Your task to perform on an android device: find which apps use the phone's location Image 0: 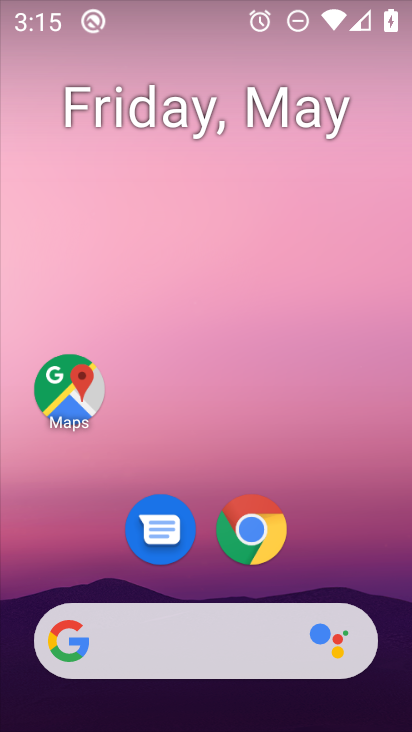
Step 0: drag from (394, 651) to (369, 363)
Your task to perform on an android device: find which apps use the phone's location Image 1: 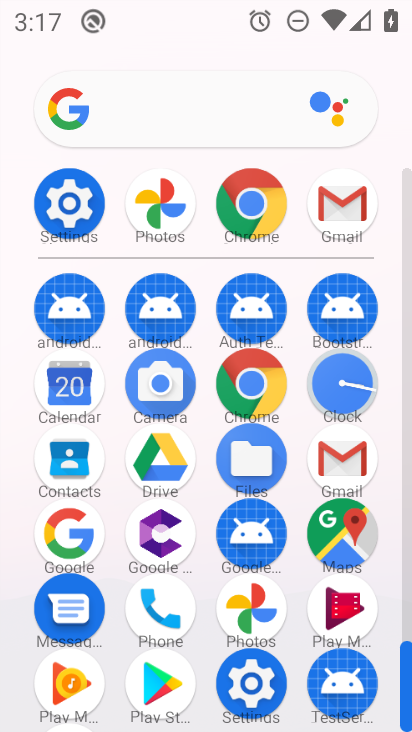
Step 1: click (64, 206)
Your task to perform on an android device: find which apps use the phone's location Image 2: 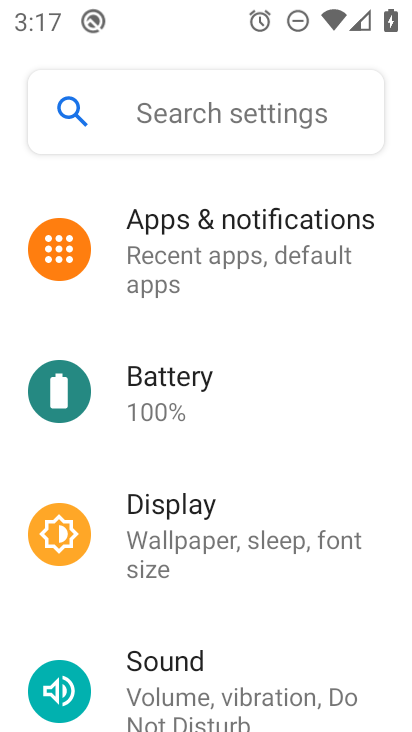
Step 2: drag from (292, 668) to (277, 326)
Your task to perform on an android device: find which apps use the phone's location Image 3: 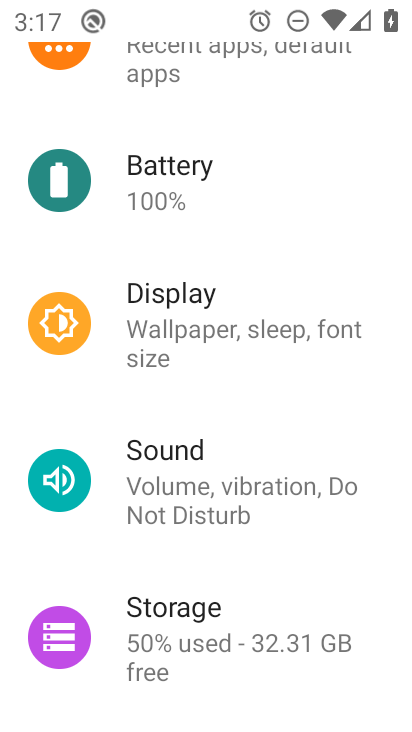
Step 3: drag from (292, 691) to (289, 321)
Your task to perform on an android device: find which apps use the phone's location Image 4: 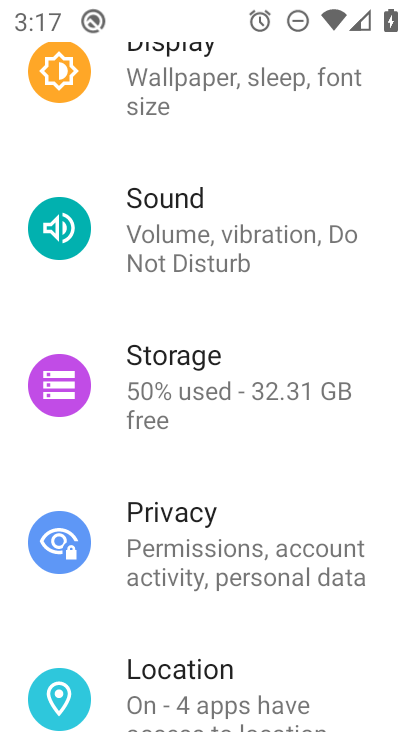
Step 4: click (205, 688)
Your task to perform on an android device: find which apps use the phone's location Image 5: 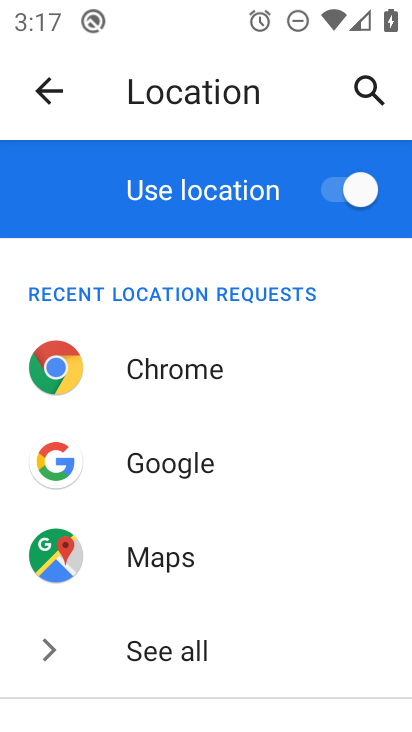
Step 5: drag from (316, 626) to (256, 324)
Your task to perform on an android device: find which apps use the phone's location Image 6: 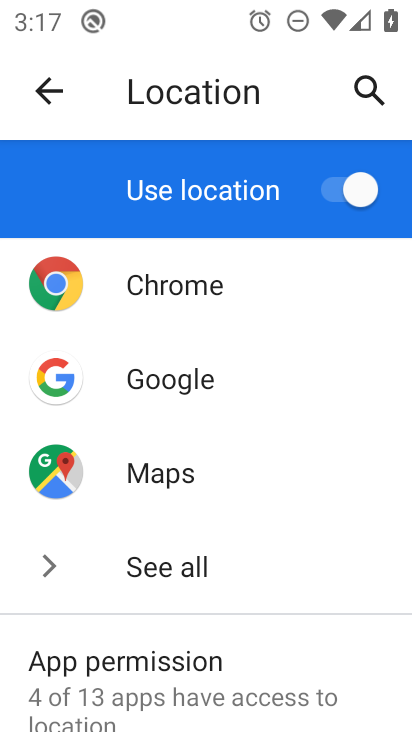
Step 6: drag from (359, 699) to (313, 386)
Your task to perform on an android device: find which apps use the phone's location Image 7: 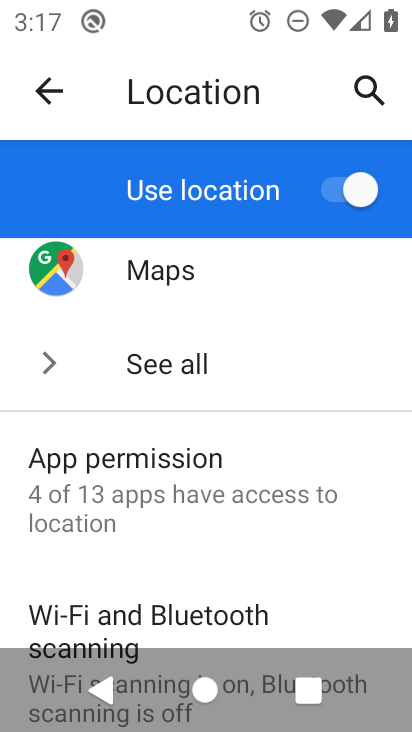
Step 7: click (74, 489)
Your task to perform on an android device: find which apps use the phone's location Image 8: 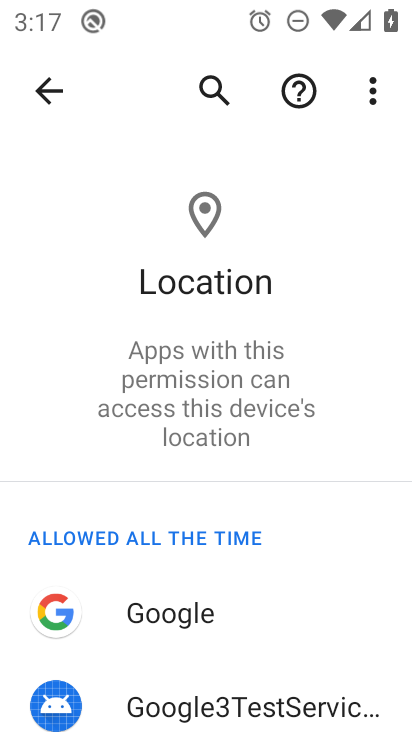
Step 8: task complete